Your task to perform on an android device: Open accessibility settings Image 0: 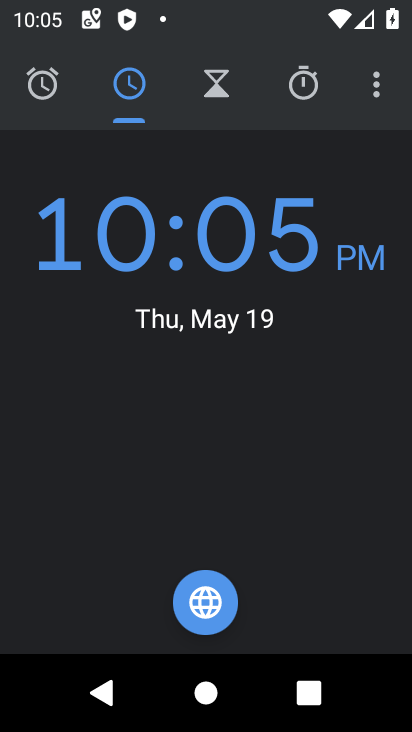
Step 0: press home button
Your task to perform on an android device: Open accessibility settings Image 1: 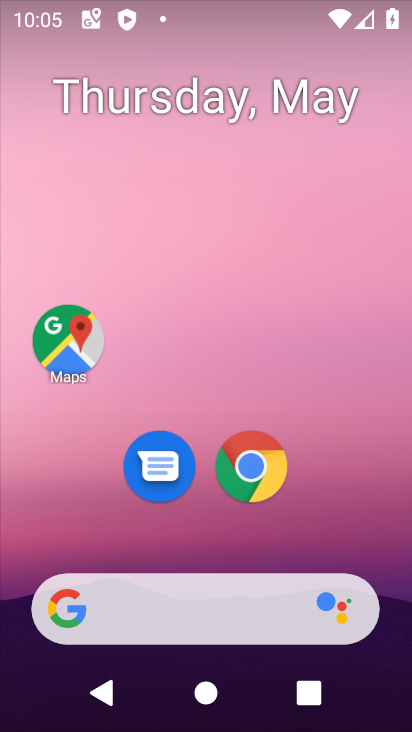
Step 1: drag from (293, 515) to (269, 174)
Your task to perform on an android device: Open accessibility settings Image 2: 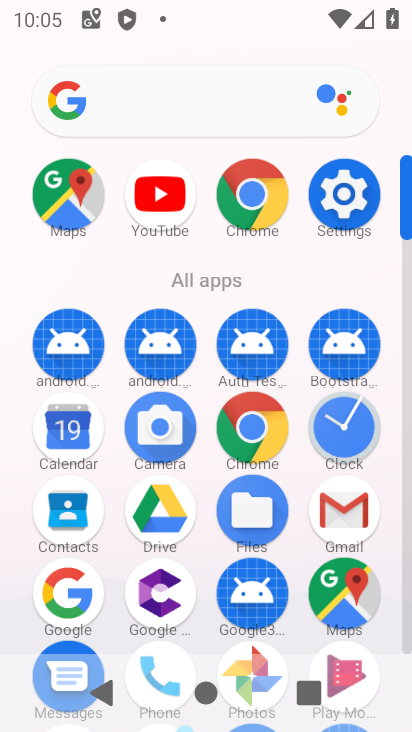
Step 2: click (350, 184)
Your task to perform on an android device: Open accessibility settings Image 3: 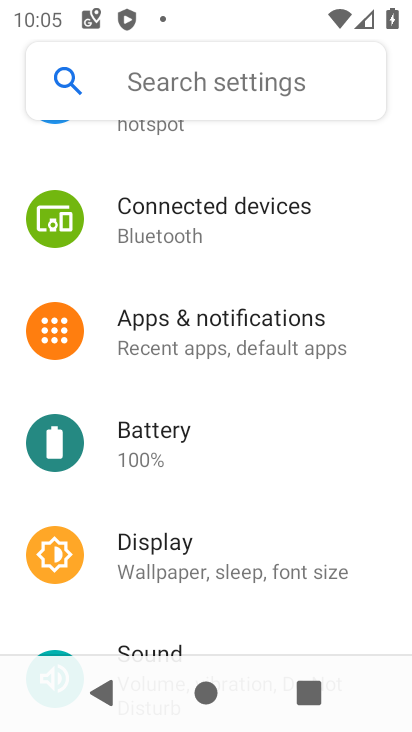
Step 3: drag from (231, 589) to (251, 123)
Your task to perform on an android device: Open accessibility settings Image 4: 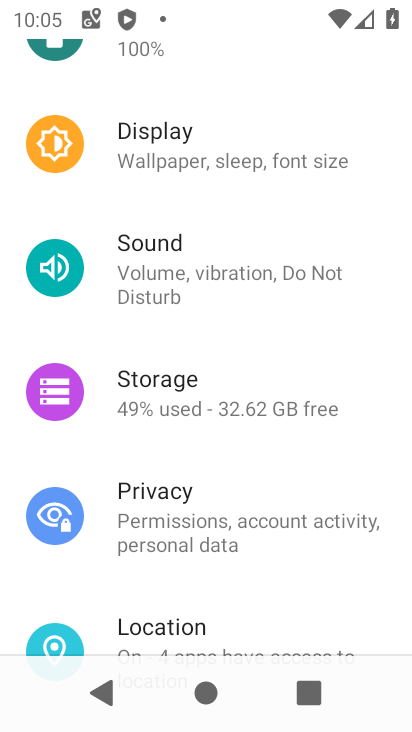
Step 4: drag from (228, 542) to (254, 180)
Your task to perform on an android device: Open accessibility settings Image 5: 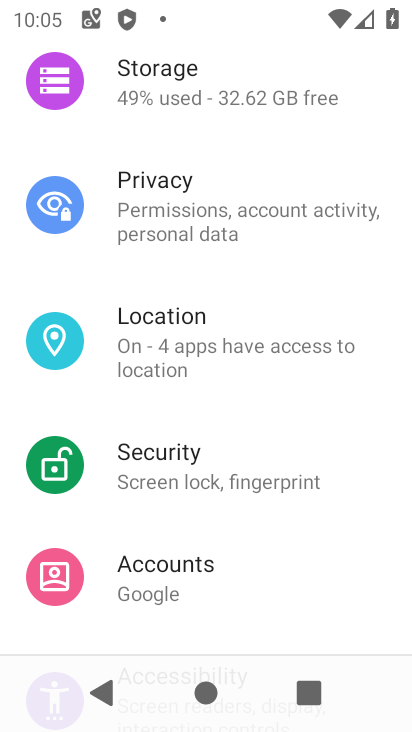
Step 5: drag from (218, 545) to (253, 226)
Your task to perform on an android device: Open accessibility settings Image 6: 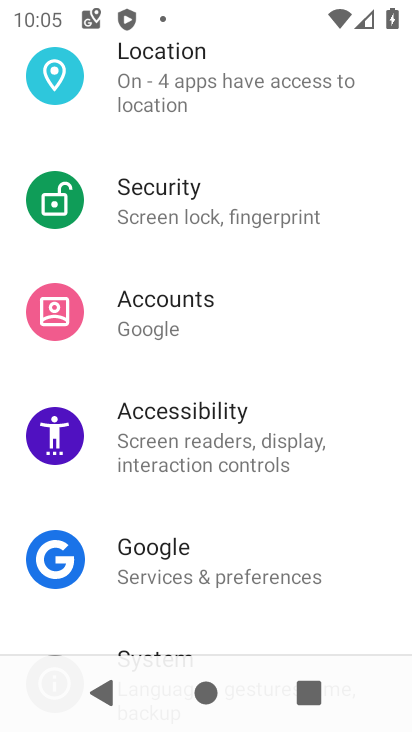
Step 6: click (211, 447)
Your task to perform on an android device: Open accessibility settings Image 7: 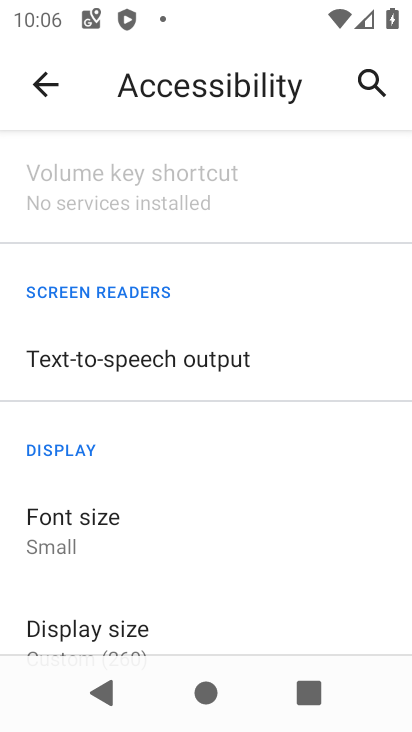
Step 7: task complete